Your task to perform on an android device: turn off sleep mode Image 0: 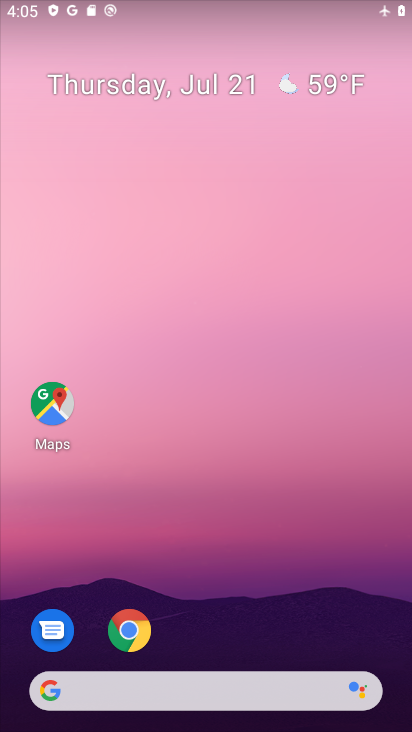
Step 0: drag from (300, 615) to (248, 289)
Your task to perform on an android device: turn off sleep mode Image 1: 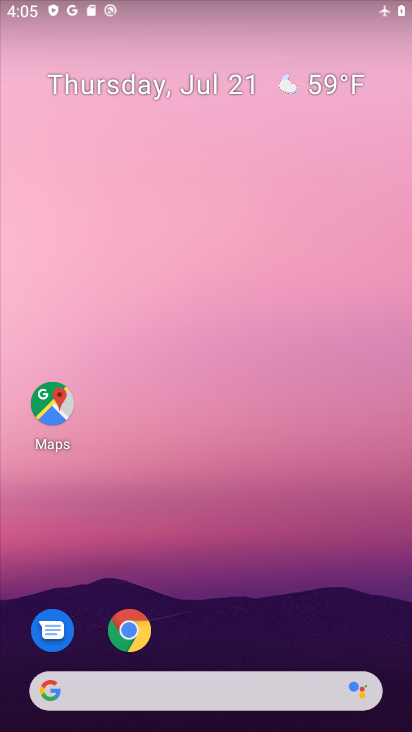
Step 1: drag from (227, 466) to (201, 290)
Your task to perform on an android device: turn off sleep mode Image 2: 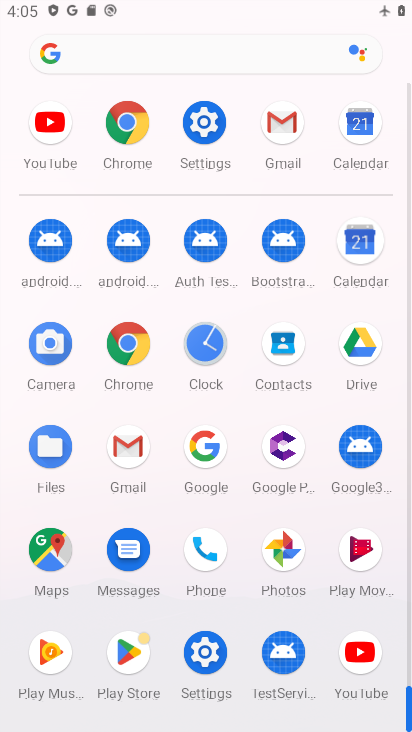
Step 2: drag from (153, 349) to (139, 246)
Your task to perform on an android device: turn off sleep mode Image 3: 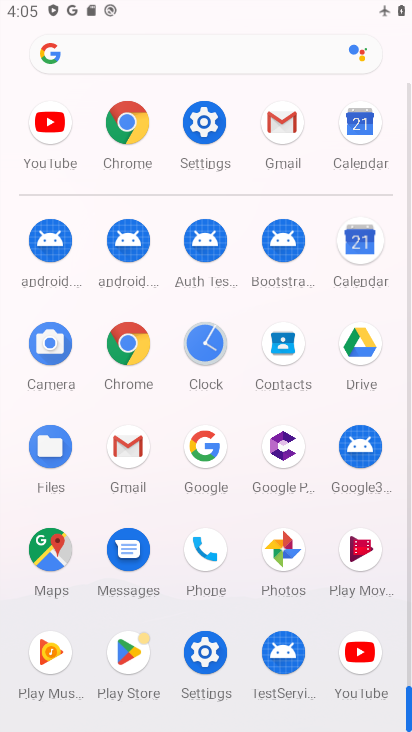
Step 3: click (215, 127)
Your task to perform on an android device: turn off sleep mode Image 4: 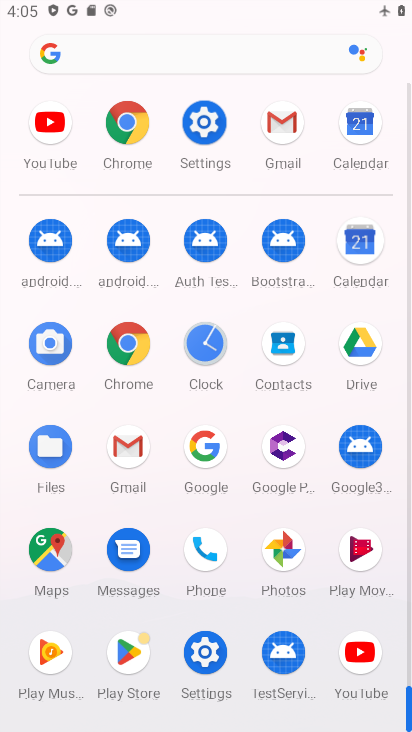
Step 4: click (207, 129)
Your task to perform on an android device: turn off sleep mode Image 5: 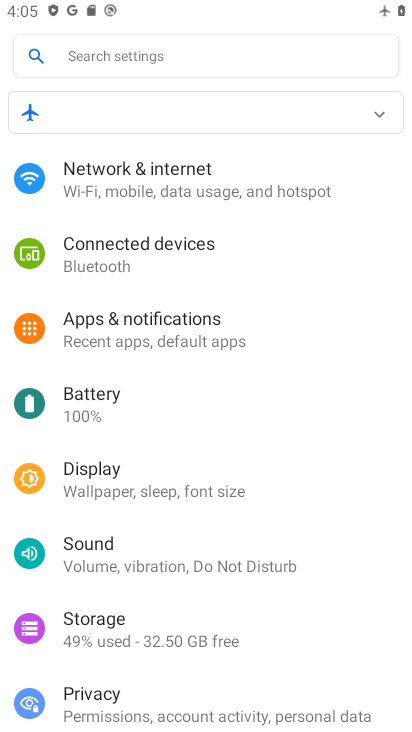
Step 5: click (135, 485)
Your task to perform on an android device: turn off sleep mode Image 6: 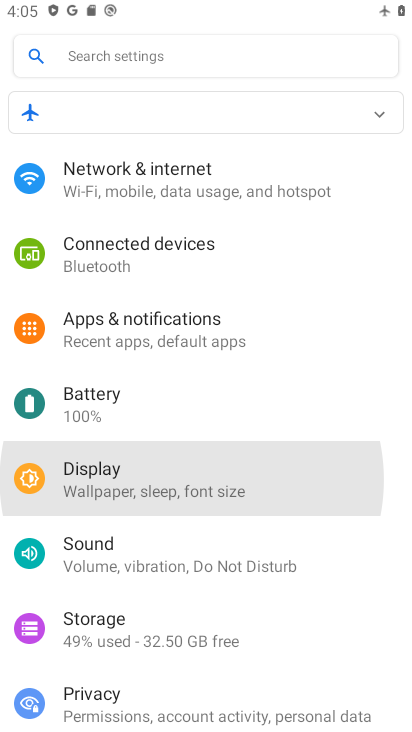
Step 6: click (130, 490)
Your task to perform on an android device: turn off sleep mode Image 7: 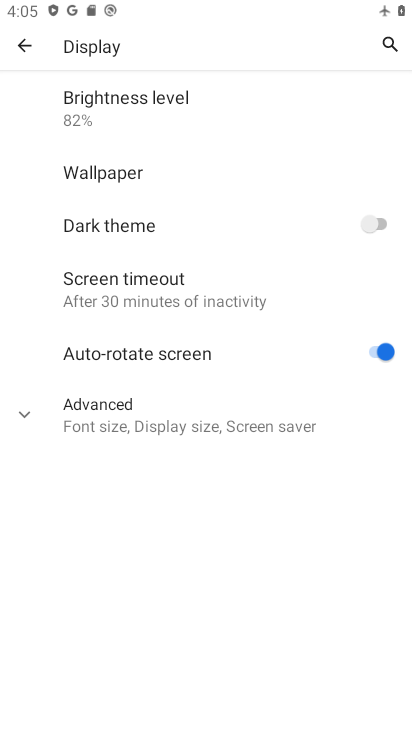
Step 7: click (389, 354)
Your task to perform on an android device: turn off sleep mode Image 8: 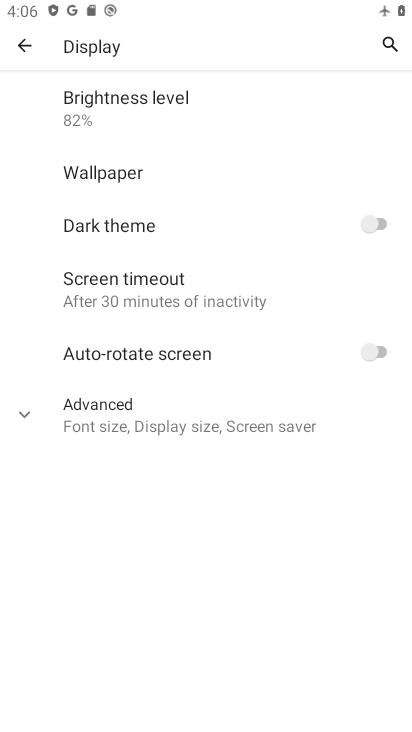
Step 8: click (28, 75)
Your task to perform on an android device: turn off sleep mode Image 9: 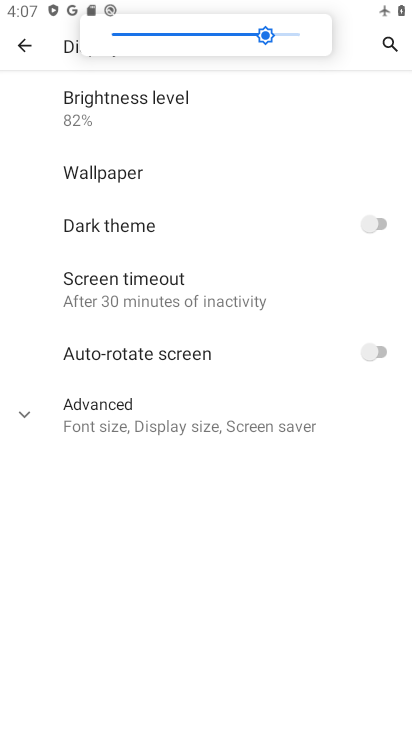
Step 9: click (17, 48)
Your task to perform on an android device: turn off sleep mode Image 10: 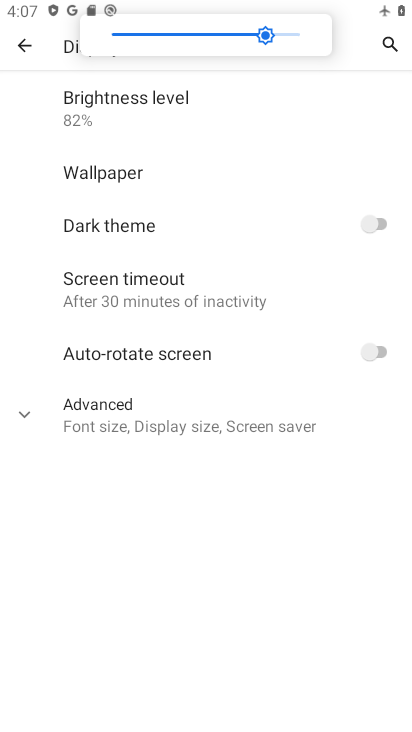
Step 10: click (20, 52)
Your task to perform on an android device: turn off sleep mode Image 11: 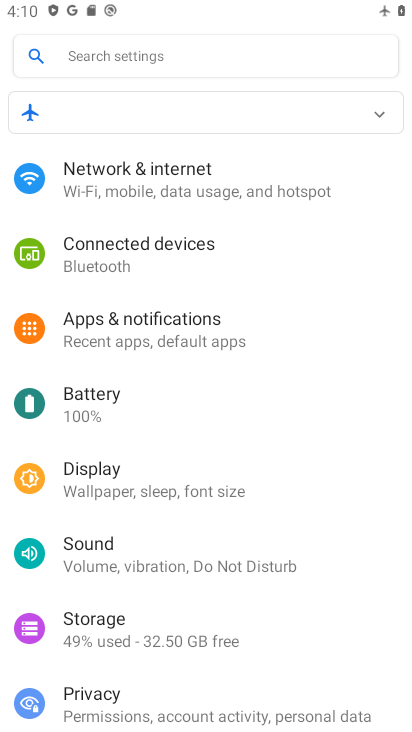
Step 11: click (107, 463)
Your task to perform on an android device: turn off sleep mode Image 12: 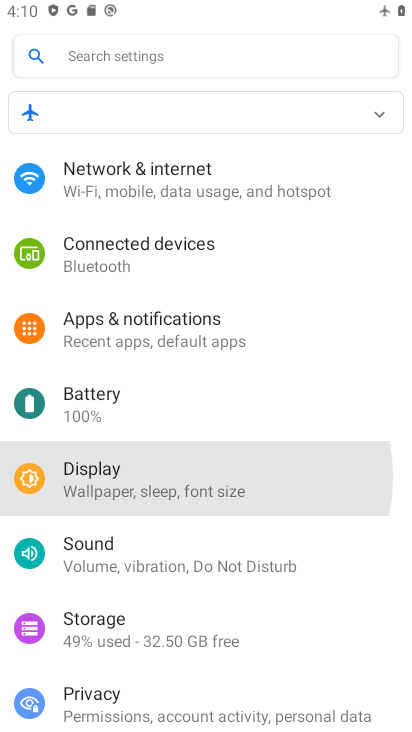
Step 12: click (105, 464)
Your task to perform on an android device: turn off sleep mode Image 13: 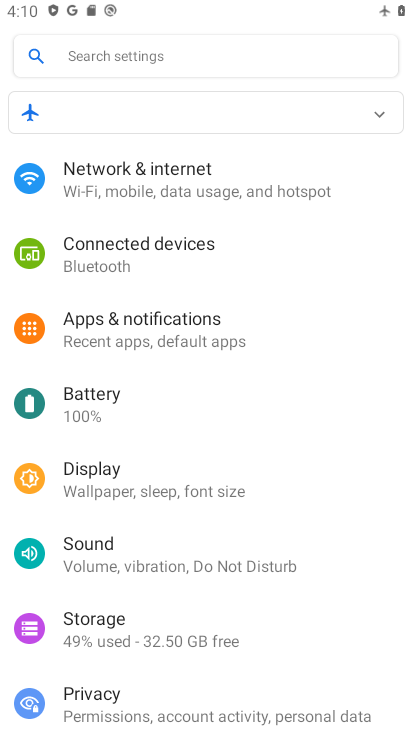
Step 13: click (104, 465)
Your task to perform on an android device: turn off sleep mode Image 14: 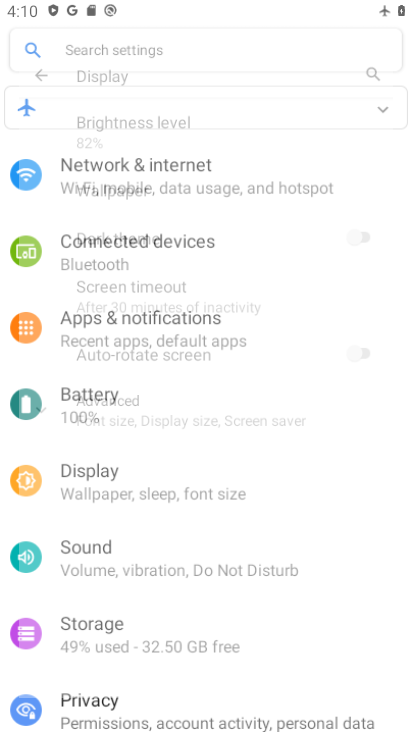
Step 14: click (107, 467)
Your task to perform on an android device: turn off sleep mode Image 15: 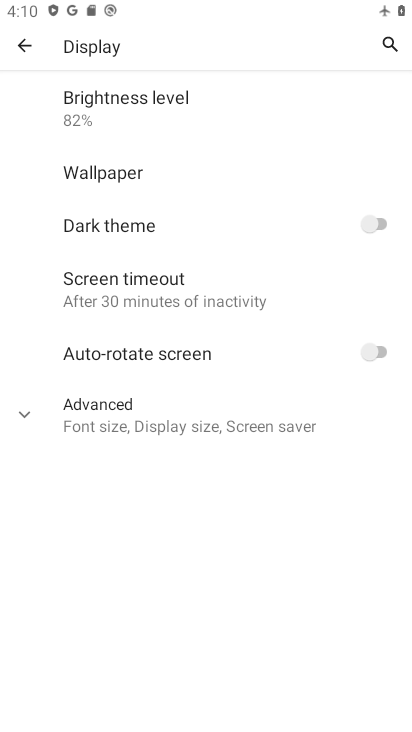
Step 15: task complete